Your task to perform on an android device: What's the weather going to be this weekend? Image 0: 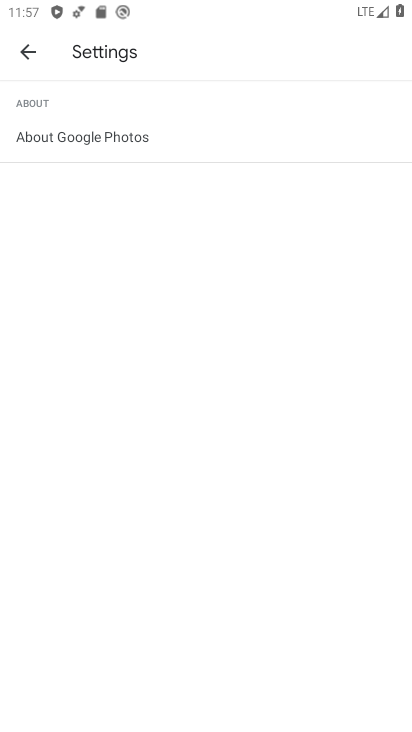
Step 0: press back button
Your task to perform on an android device: What's the weather going to be this weekend? Image 1: 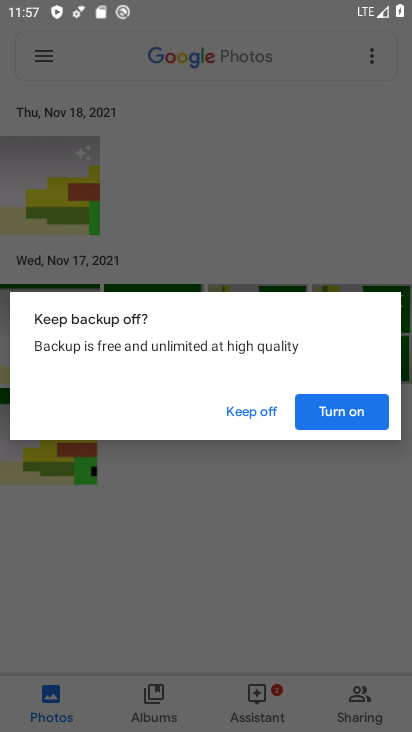
Step 1: press home button
Your task to perform on an android device: What's the weather going to be this weekend? Image 2: 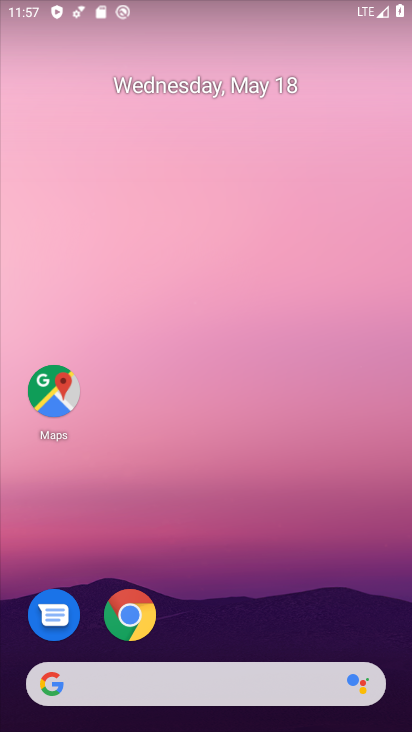
Step 2: drag from (238, 576) to (182, 40)
Your task to perform on an android device: What's the weather going to be this weekend? Image 3: 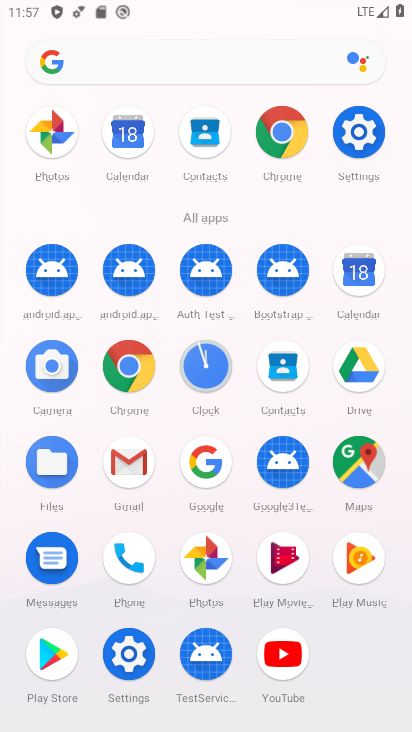
Step 3: click (125, 363)
Your task to perform on an android device: What's the weather going to be this weekend? Image 4: 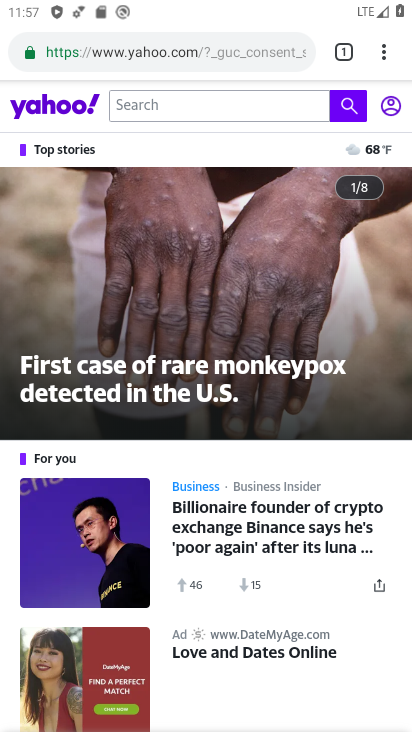
Step 4: click (162, 57)
Your task to perform on an android device: What's the weather going to be this weekend? Image 5: 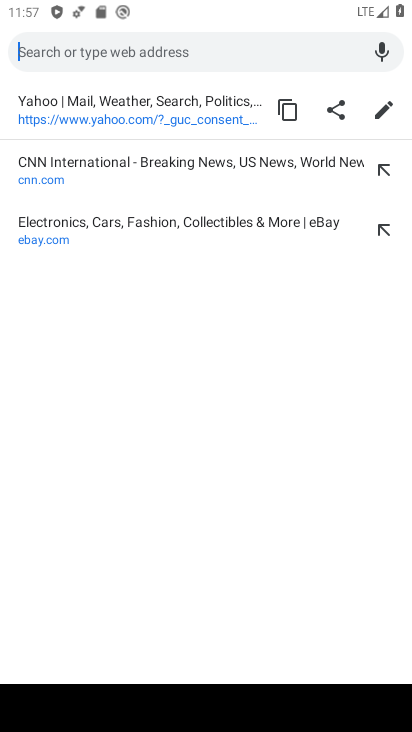
Step 5: type "What's the weather going to be this weekend?"
Your task to perform on an android device: What's the weather going to be this weekend? Image 6: 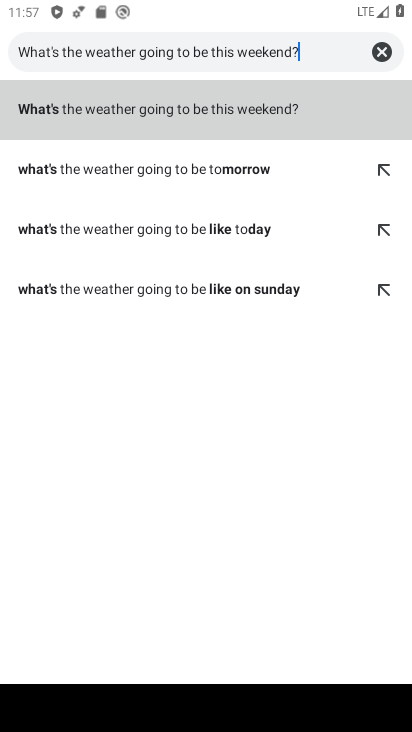
Step 6: type ""
Your task to perform on an android device: What's the weather going to be this weekend? Image 7: 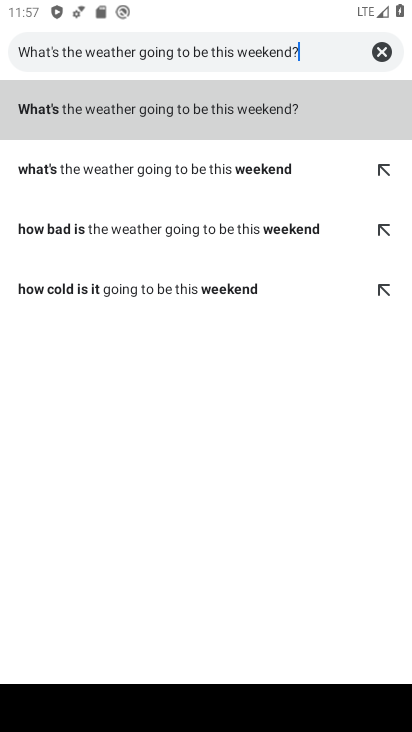
Step 7: click (184, 117)
Your task to perform on an android device: What's the weather going to be this weekend? Image 8: 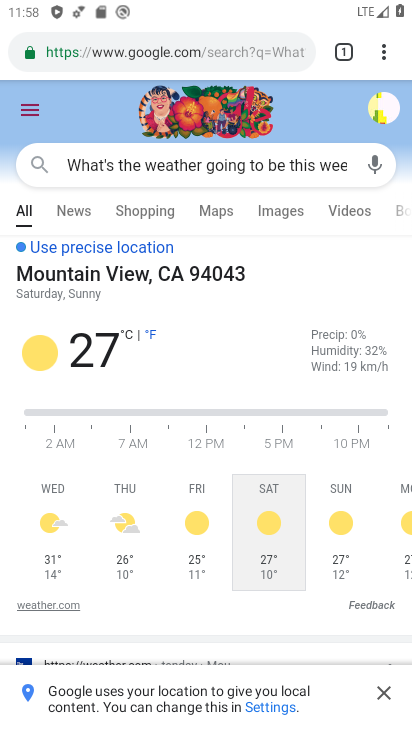
Step 8: task complete